Your task to perform on an android device: turn off sleep mode Image 0: 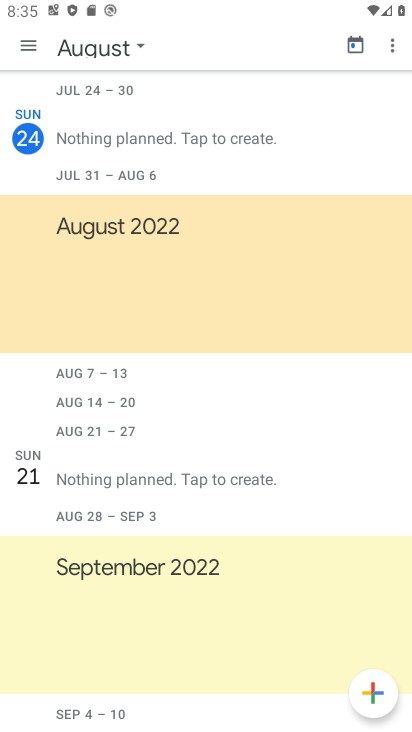
Step 0: press home button
Your task to perform on an android device: turn off sleep mode Image 1: 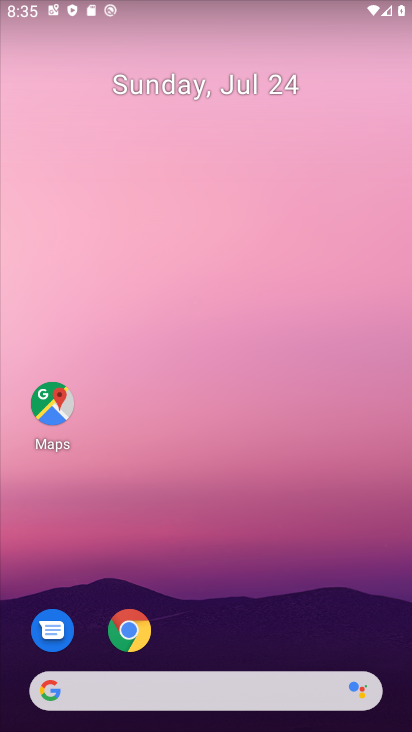
Step 1: drag from (202, 647) to (216, 172)
Your task to perform on an android device: turn off sleep mode Image 2: 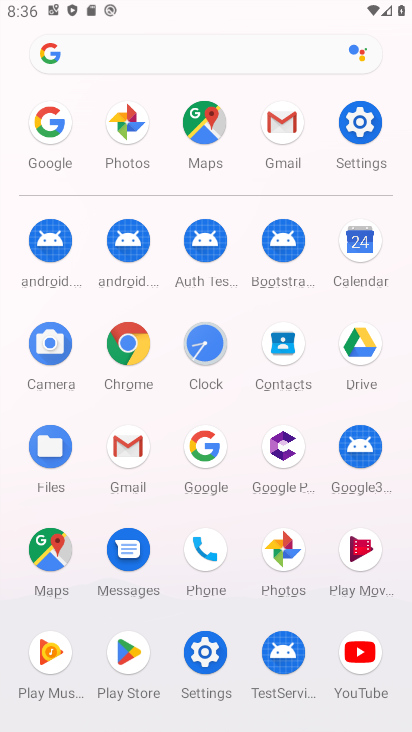
Step 2: click (333, 130)
Your task to perform on an android device: turn off sleep mode Image 3: 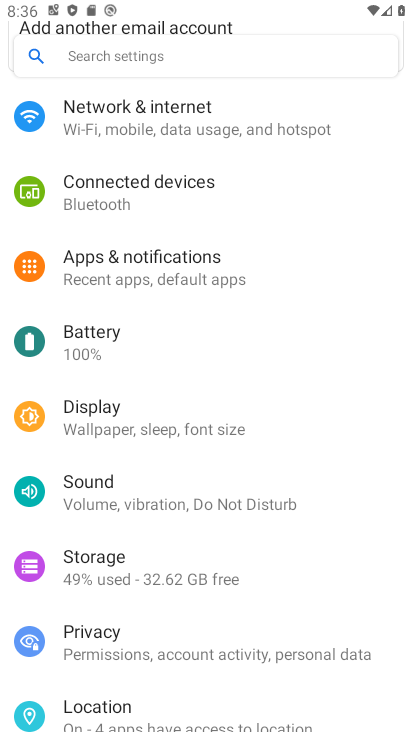
Step 3: click (129, 435)
Your task to perform on an android device: turn off sleep mode Image 4: 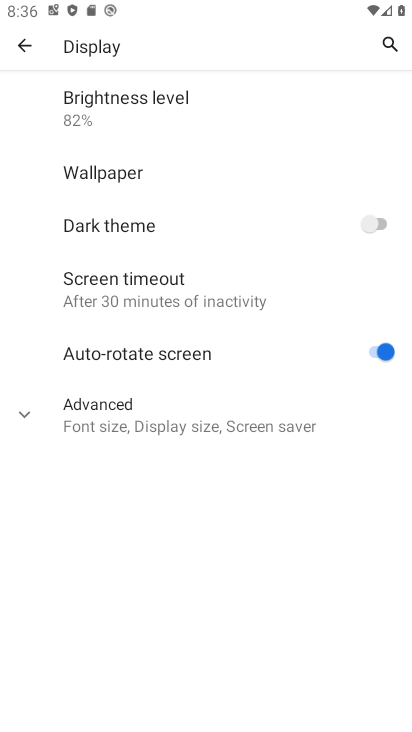
Step 4: click (110, 288)
Your task to perform on an android device: turn off sleep mode Image 5: 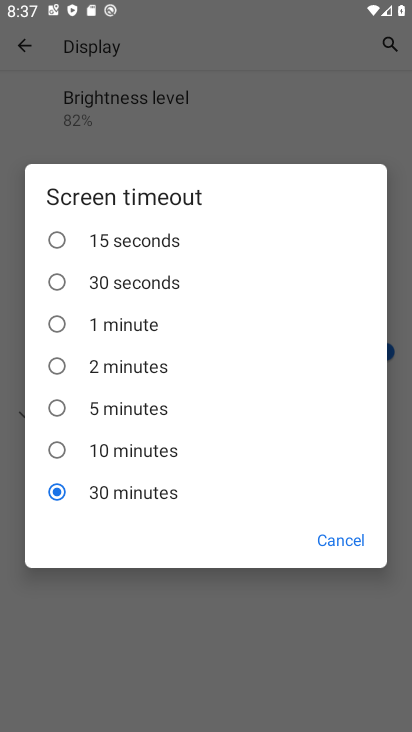
Step 5: click (147, 348)
Your task to perform on an android device: turn off sleep mode Image 6: 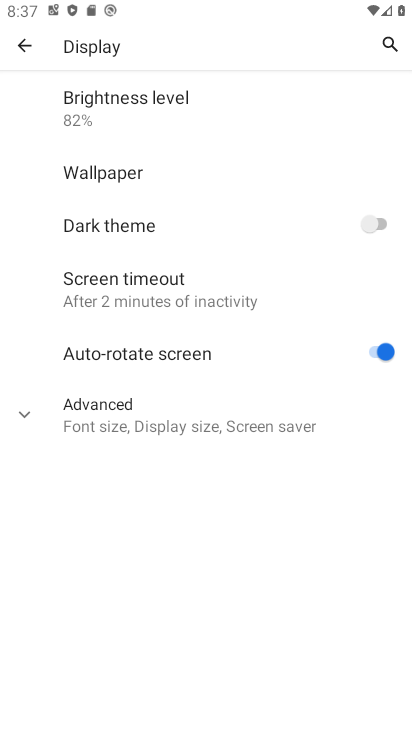
Step 6: task complete